Your task to perform on an android device: Go to Amazon Image 0: 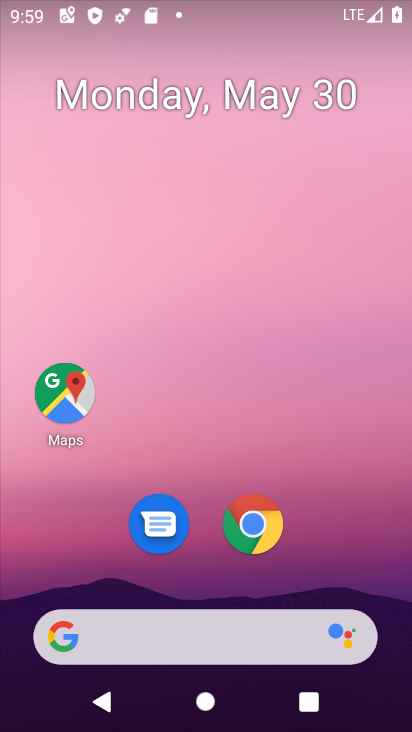
Step 0: drag from (305, 548) to (281, 15)
Your task to perform on an android device: Go to Amazon Image 1: 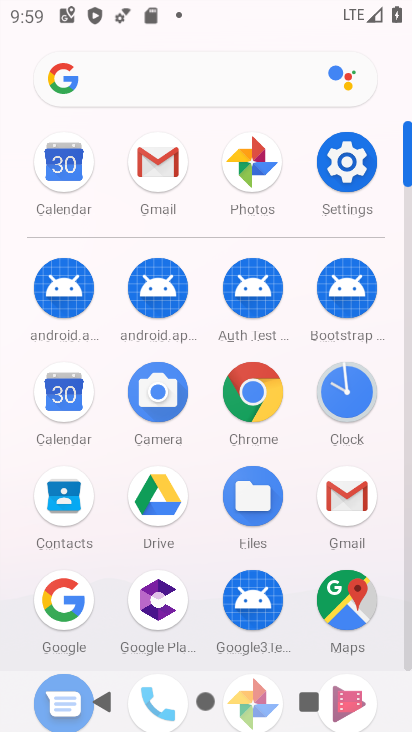
Step 1: click (267, 392)
Your task to perform on an android device: Go to Amazon Image 2: 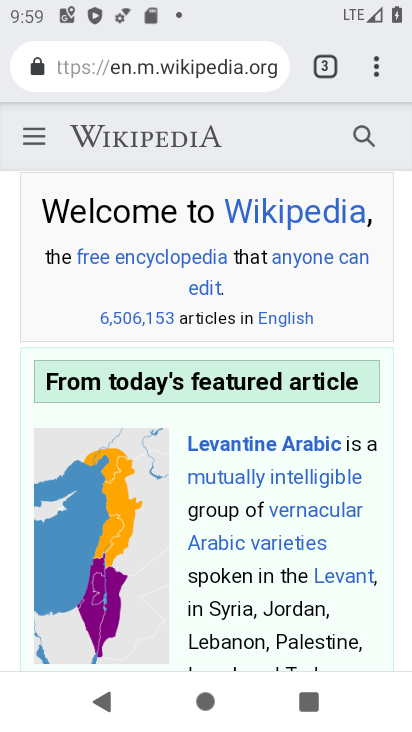
Step 2: click (372, 68)
Your task to perform on an android device: Go to Amazon Image 3: 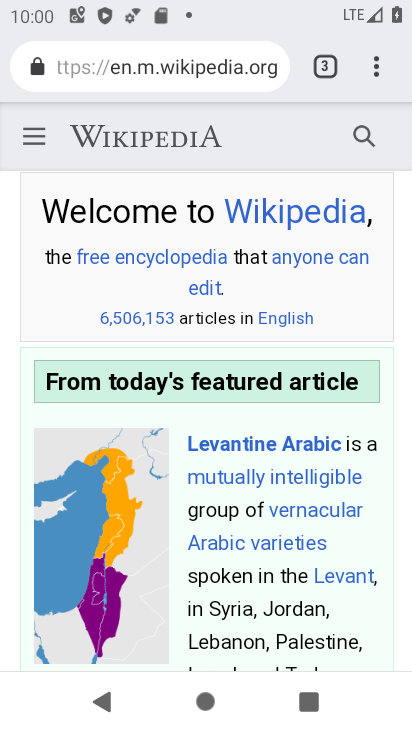
Step 3: click (372, 68)
Your task to perform on an android device: Go to Amazon Image 4: 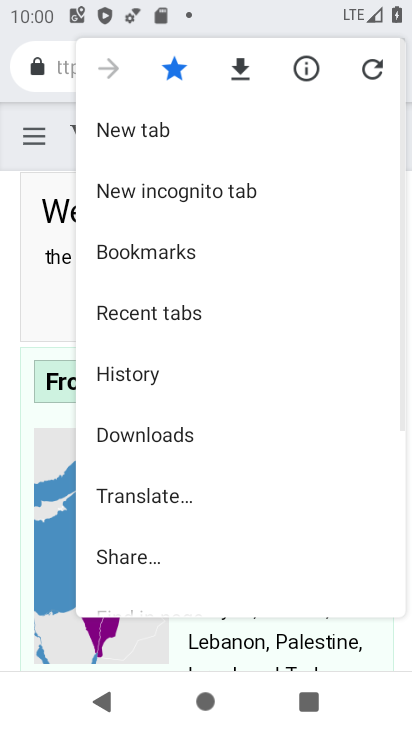
Step 4: click (298, 123)
Your task to perform on an android device: Go to Amazon Image 5: 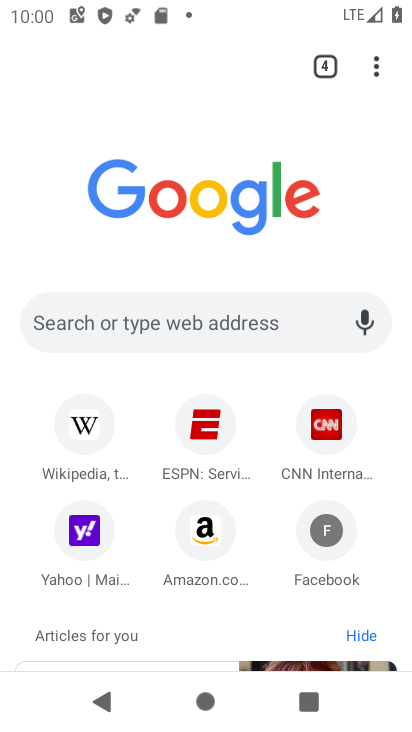
Step 5: click (221, 531)
Your task to perform on an android device: Go to Amazon Image 6: 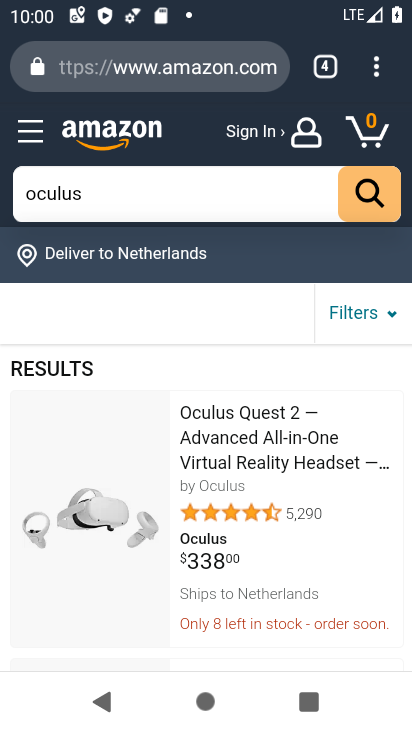
Step 6: task complete